Your task to perform on an android device: Go to network settings Image 0: 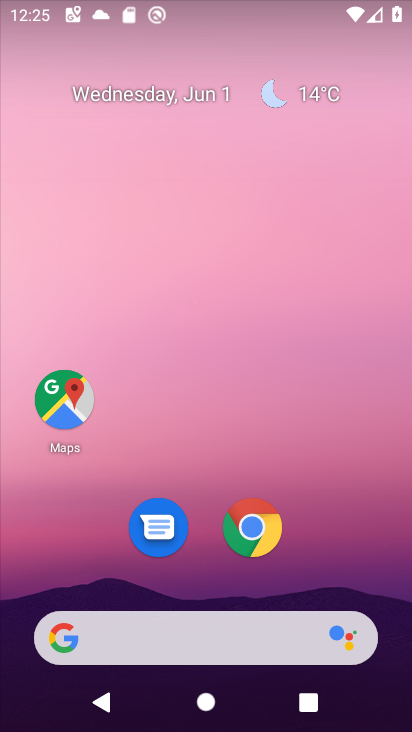
Step 0: drag from (340, 594) to (343, 2)
Your task to perform on an android device: Go to network settings Image 1: 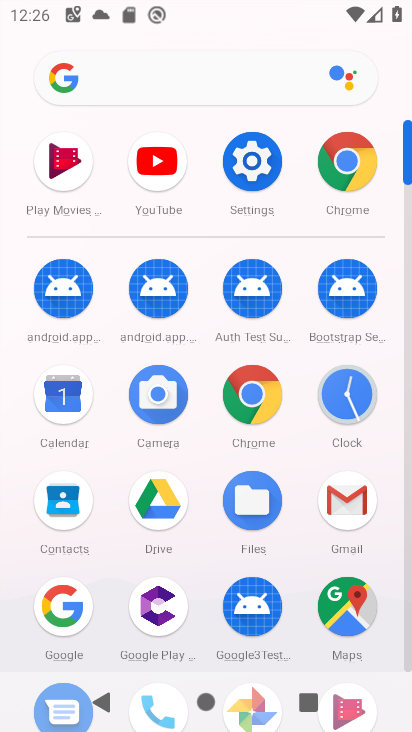
Step 1: click (254, 154)
Your task to perform on an android device: Go to network settings Image 2: 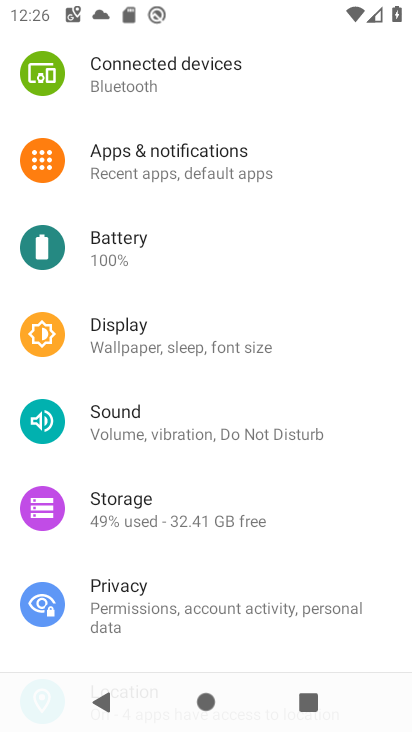
Step 2: drag from (334, 160) to (356, 488)
Your task to perform on an android device: Go to network settings Image 3: 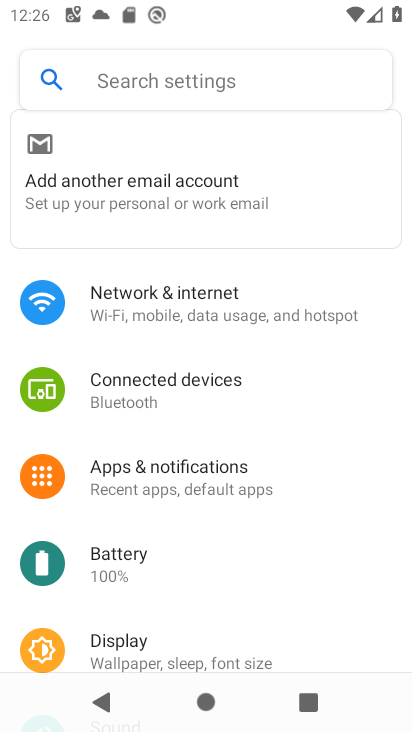
Step 3: click (136, 308)
Your task to perform on an android device: Go to network settings Image 4: 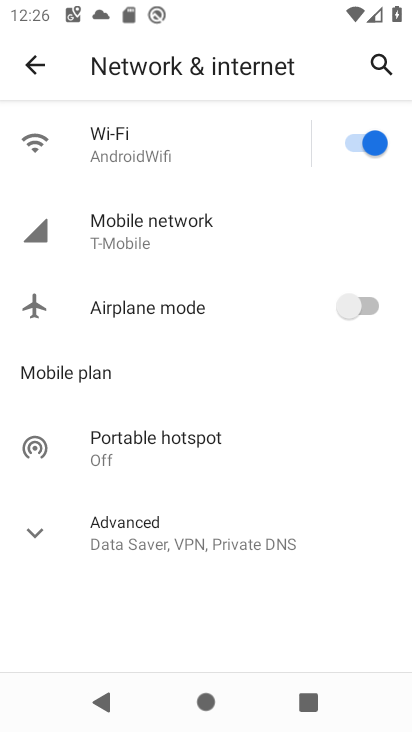
Step 4: click (116, 240)
Your task to perform on an android device: Go to network settings Image 5: 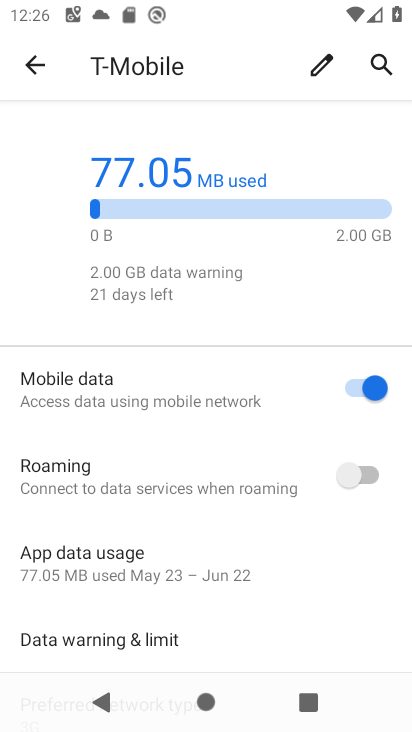
Step 5: drag from (153, 214) to (145, 164)
Your task to perform on an android device: Go to network settings Image 6: 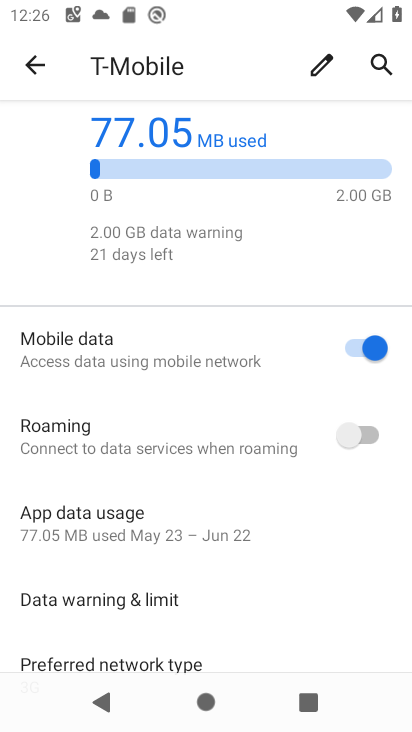
Step 6: drag from (201, 578) to (190, 110)
Your task to perform on an android device: Go to network settings Image 7: 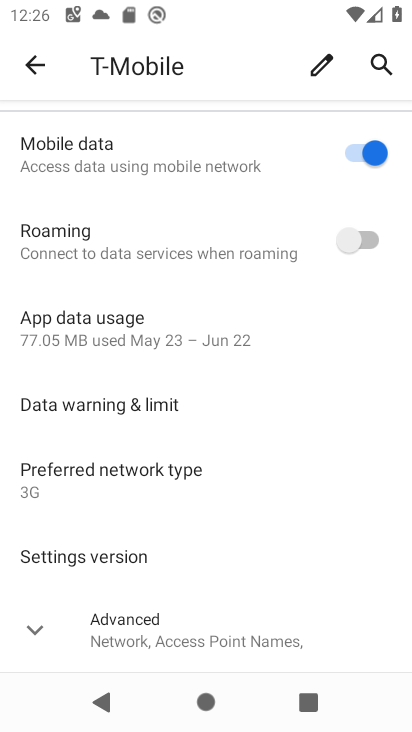
Step 7: click (32, 643)
Your task to perform on an android device: Go to network settings Image 8: 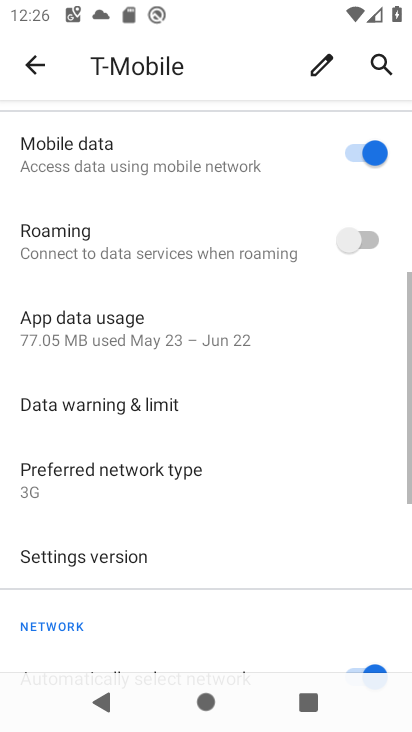
Step 8: task complete